Your task to perform on an android device: When is my next appointment? Image 0: 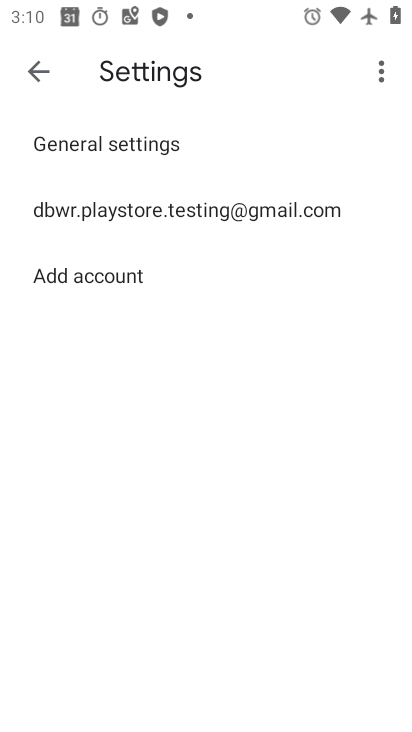
Step 0: press home button
Your task to perform on an android device: When is my next appointment? Image 1: 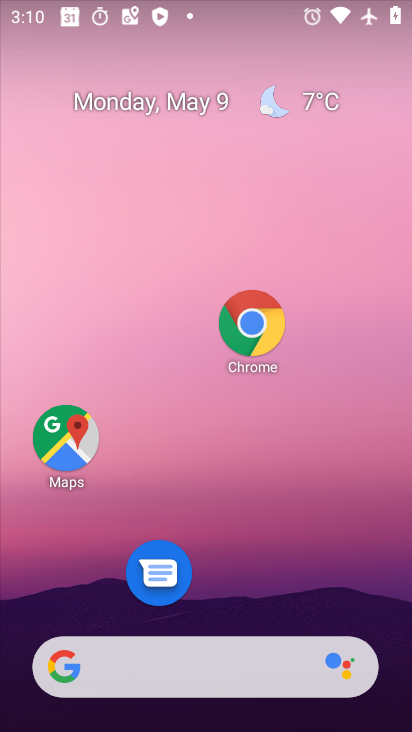
Step 1: drag from (172, 648) to (374, 51)
Your task to perform on an android device: When is my next appointment? Image 2: 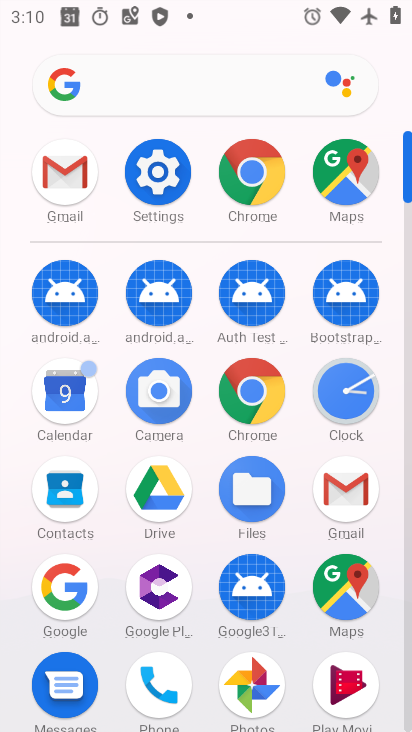
Step 2: click (59, 404)
Your task to perform on an android device: When is my next appointment? Image 3: 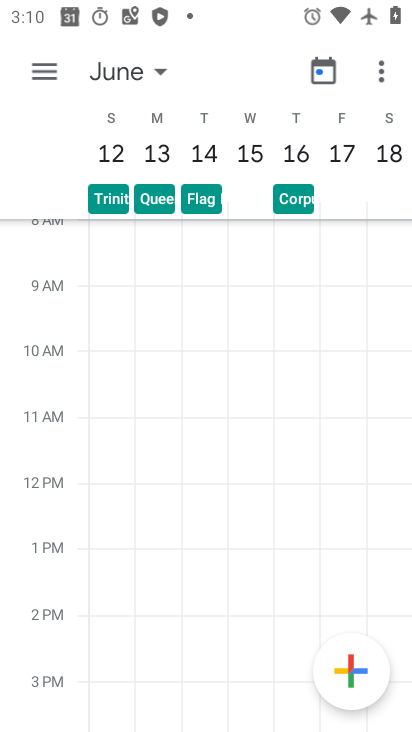
Step 3: click (132, 69)
Your task to perform on an android device: When is my next appointment? Image 4: 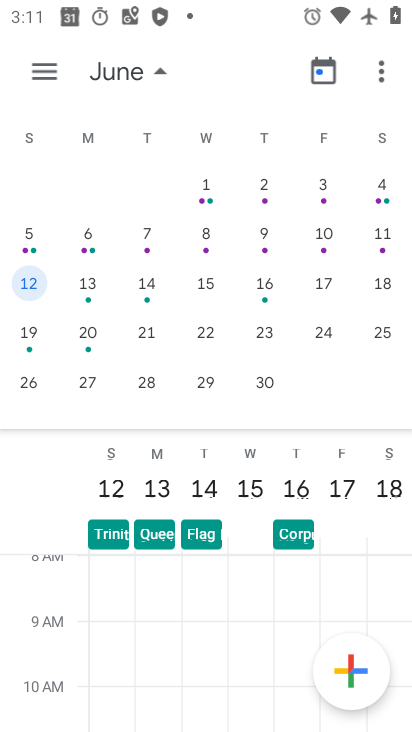
Step 4: drag from (26, 354) to (397, 311)
Your task to perform on an android device: When is my next appointment? Image 5: 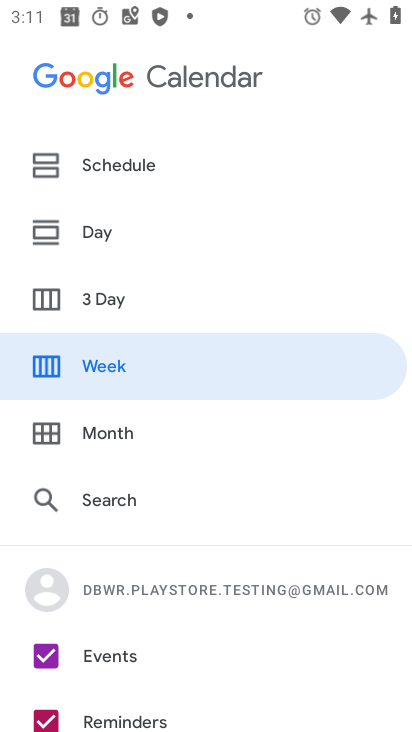
Step 5: drag from (384, 313) to (14, 344)
Your task to perform on an android device: When is my next appointment? Image 6: 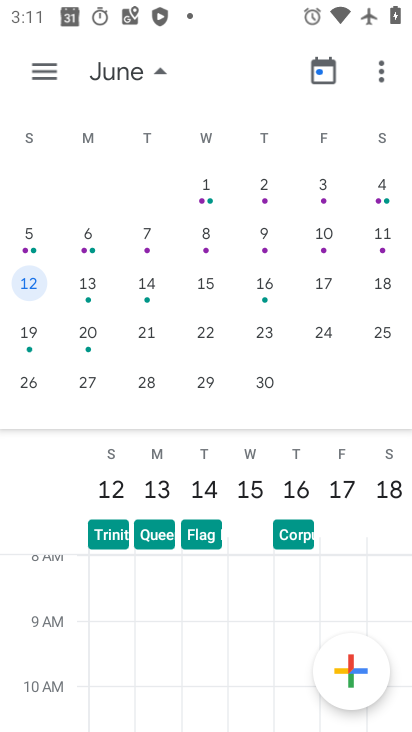
Step 6: drag from (155, 242) to (410, 254)
Your task to perform on an android device: When is my next appointment? Image 7: 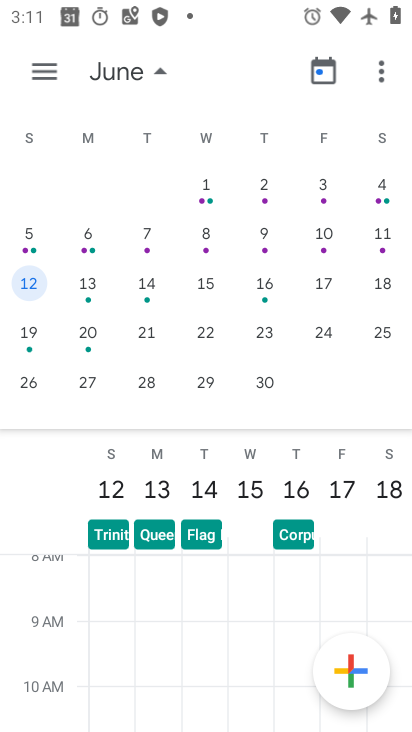
Step 7: drag from (91, 258) to (412, 219)
Your task to perform on an android device: When is my next appointment? Image 8: 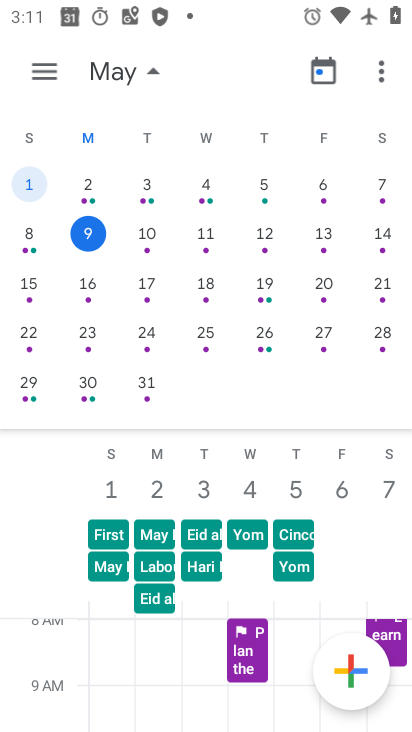
Step 8: click (46, 71)
Your task to perform on an android device: When is my next appointment? Image 9: 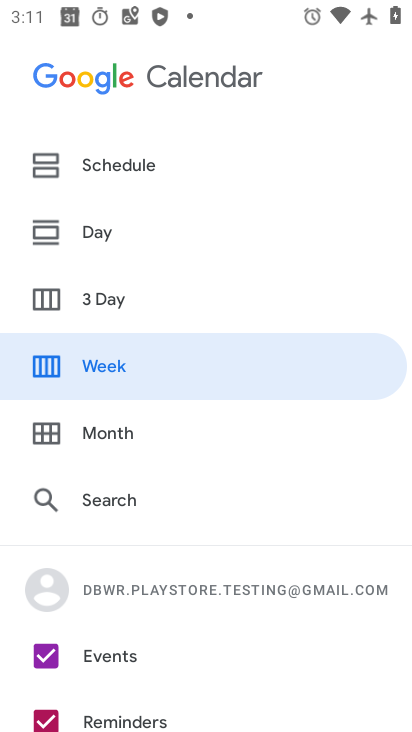
Step 9: click (132, 168)
Your task to perform on an android device: When is my next appointment? Image 10: 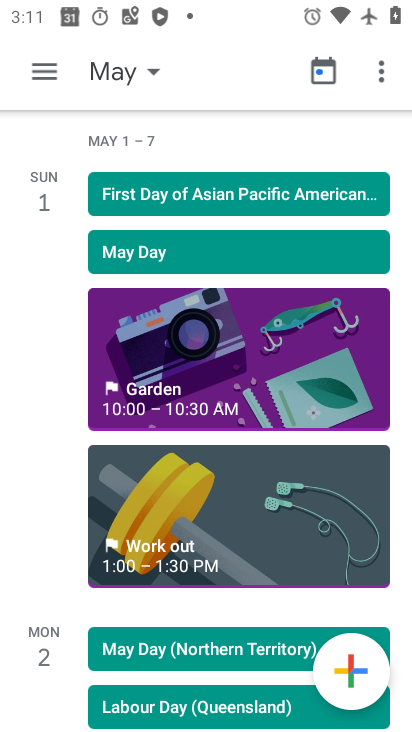
Step 10: click (191, 359)
Your task to perform on an android device: When is my next appointment? Image 11: 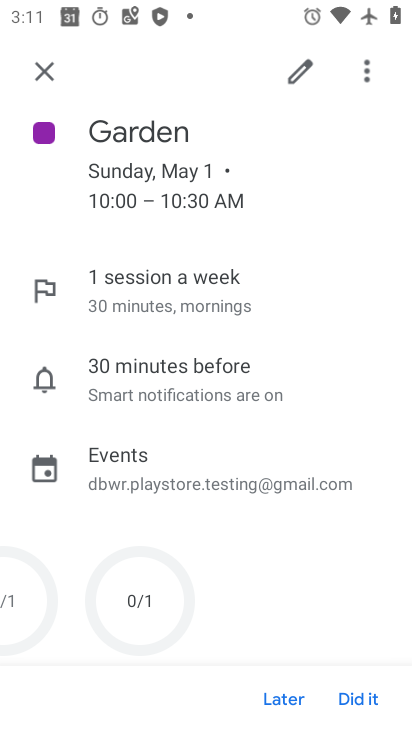
Step 11: task complete